Your task to perform on an android device: open a new tab in the chrome app Image 0: 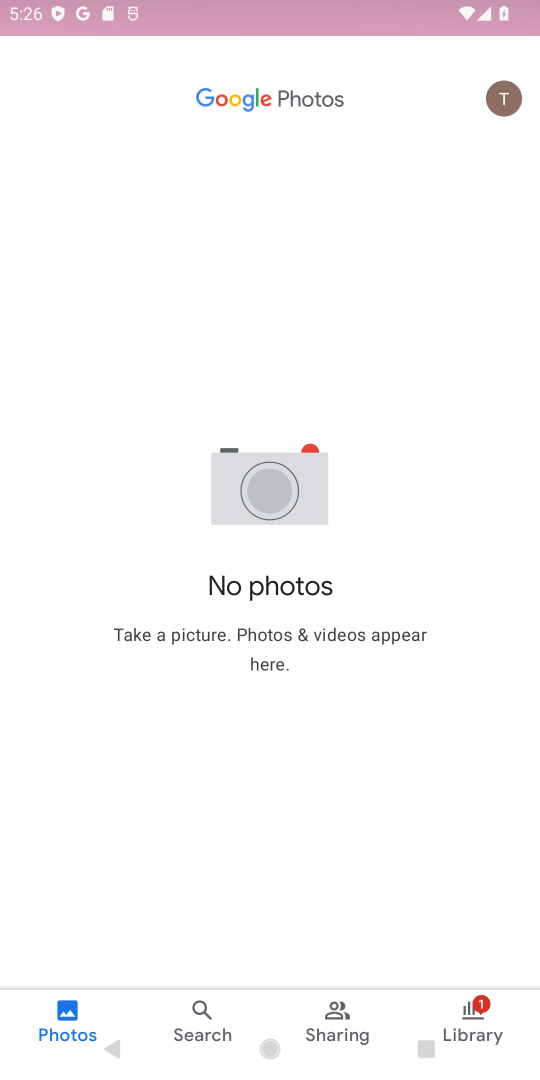
Step 0: press home button
Your task to perform on an android device: open a new tab in the chrome app Image 1: 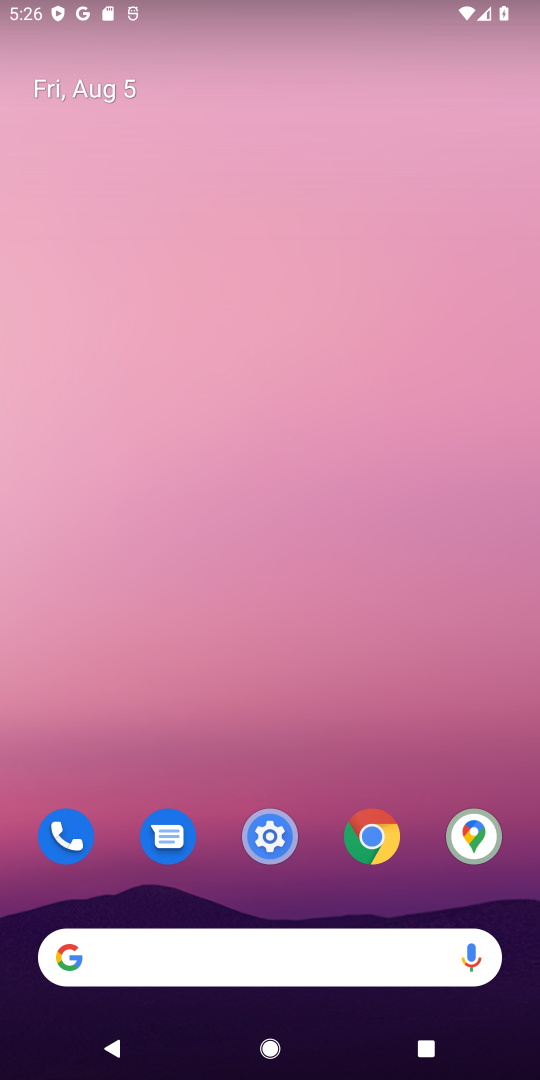
Step 1: click (370, 832)
Your task to perform on an android device: open a new tab in the chrome app Image 2: 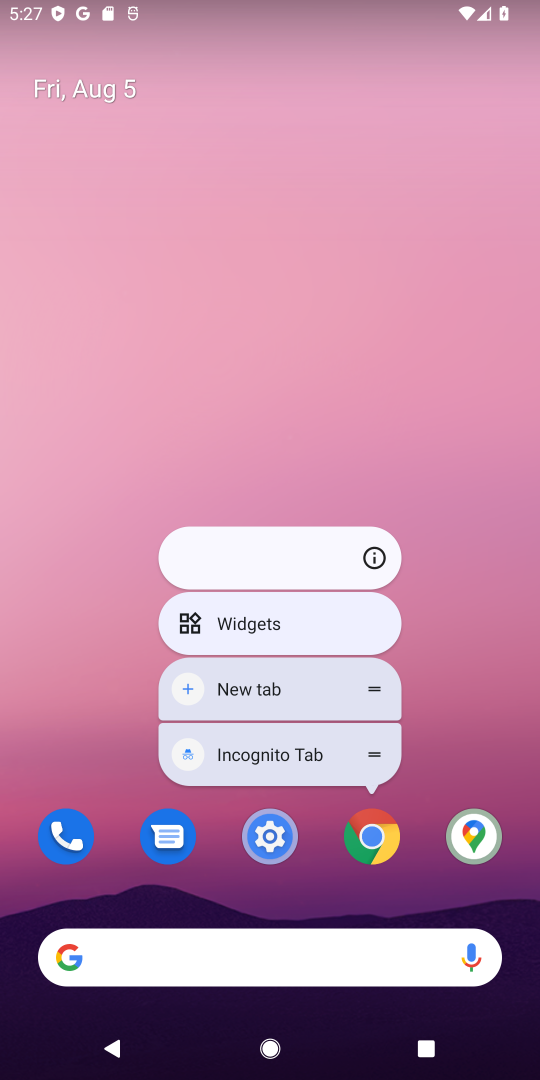
Step 2: click (421, 792)
Your task to perform on an android device: open a new tab in the chrome app Image 3: 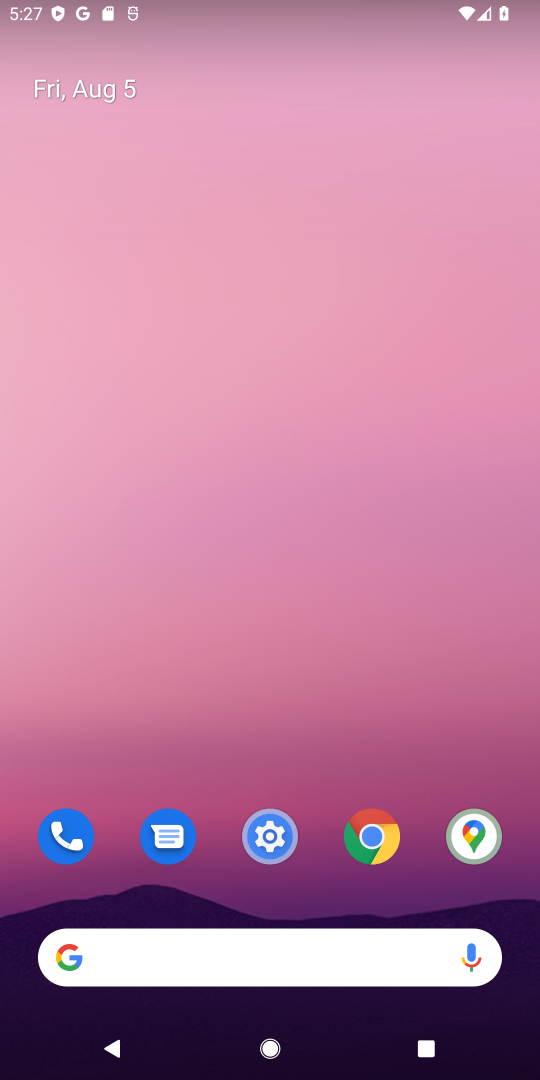
Step 3: drag from (427, 800) to (427, 50)
Your task to perform on an android device: open a new tab in the chrome app Image 4: 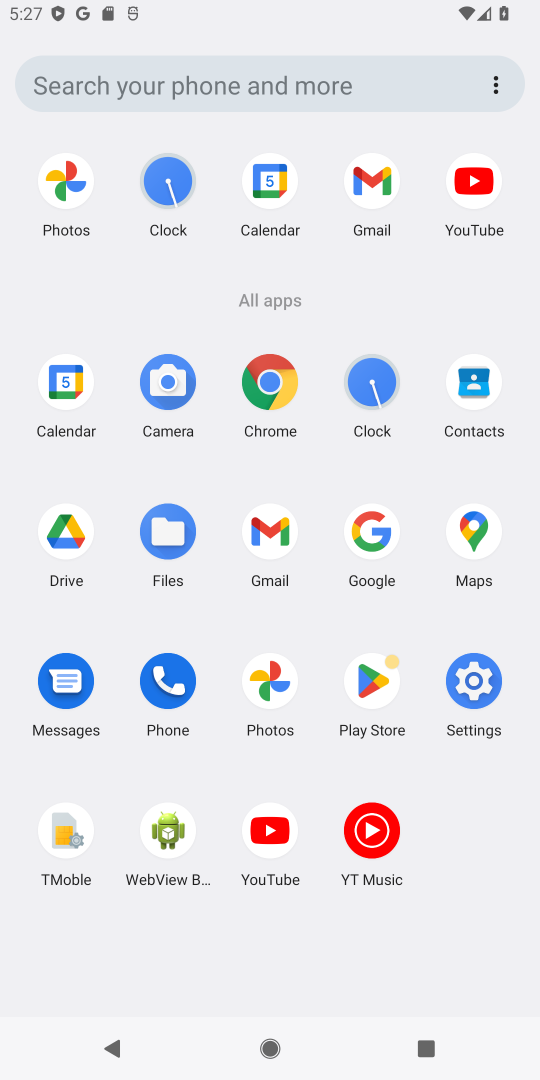
Step 4: click (260, 374)
Your task to perform on an android device: open a new tab in the chrome app Image 5: 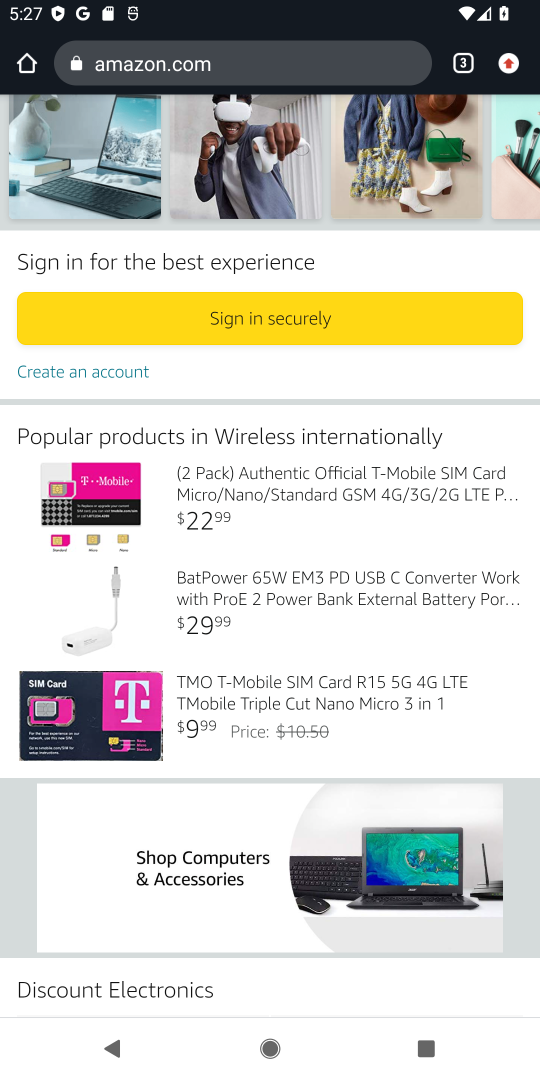
Step 5: click (468, 66)
Your task to perform on an android device: open a new tab in the chrome app Image 6: 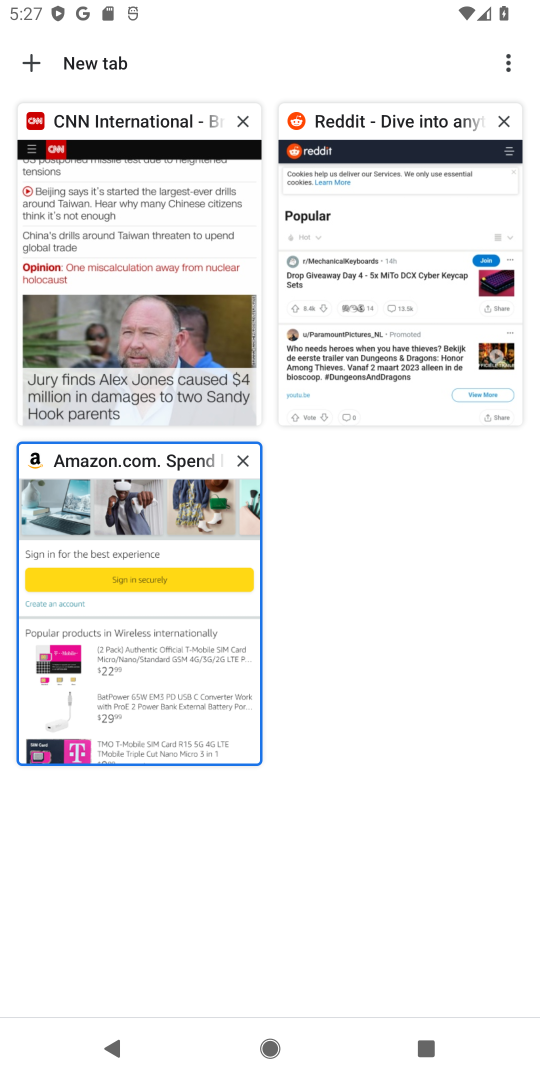
Step 6: click (33, 65)
Your task to perform on an android device: open a new tab in the chrome app Image 7: 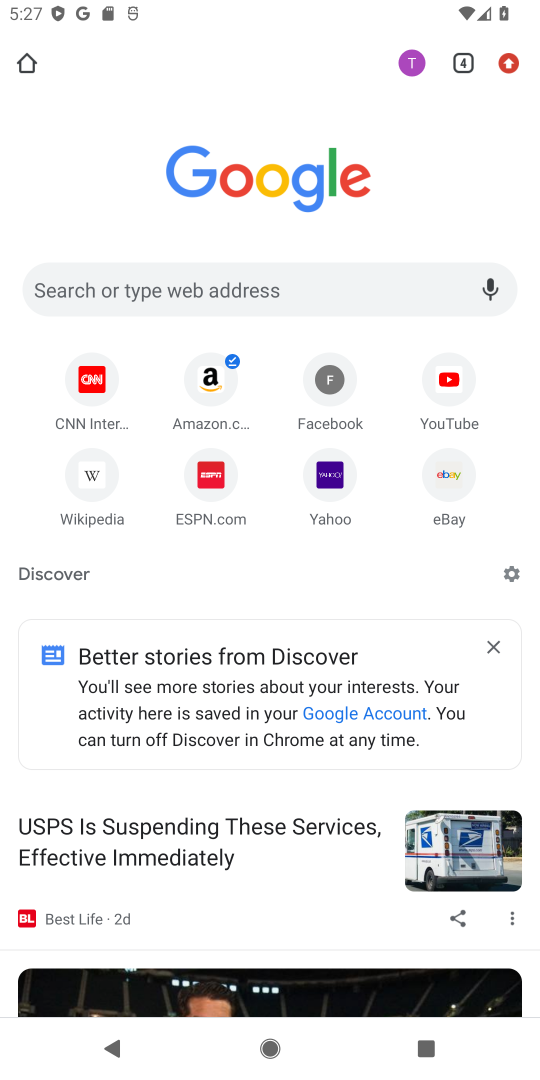
Step 7: task complete